Your task to perform on an android device: Open my contact list Image 0: 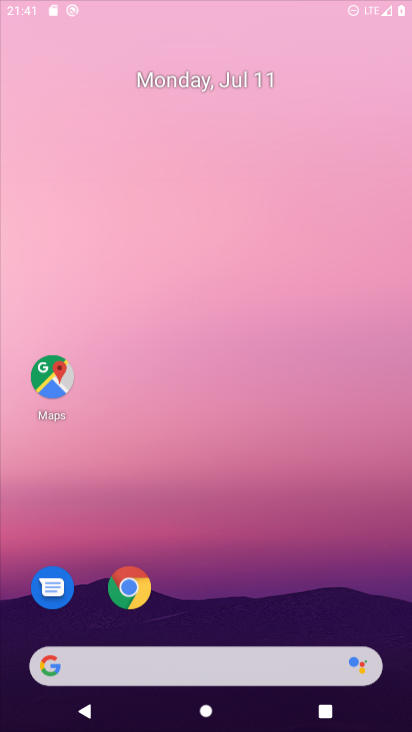
Step 0: press home button
Your task to perform on an android device: Open my contact list Image 1: 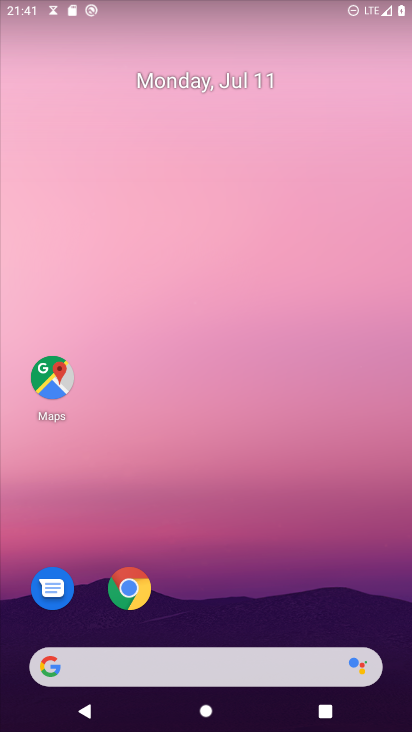
Step 1: drag from (244, 618) to (250, 86)
Your task to perform on an android device: Open my contact list Image 2: 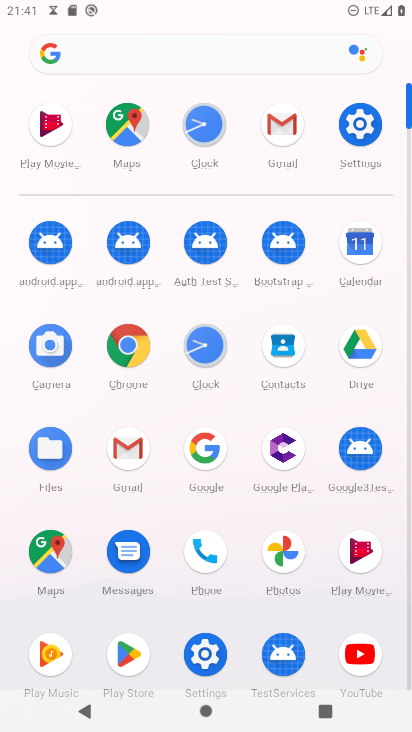
Step 2: click (283, 354)
Your task to perform on an android device: Open my contact list Image 3: 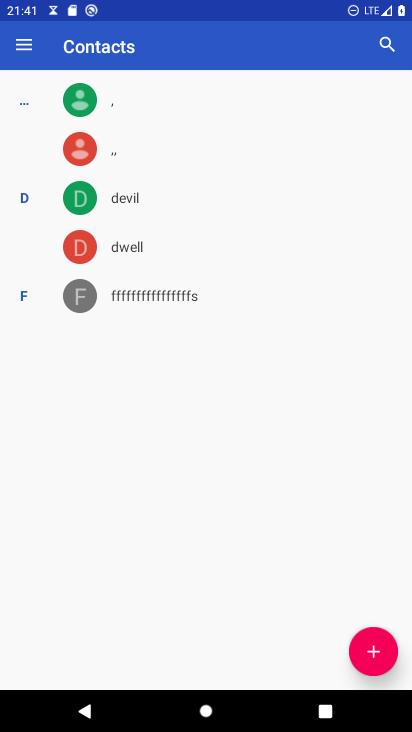
Step 3: task complete